Your task to perform on an android device: turn on improve location accuracy Image 0: 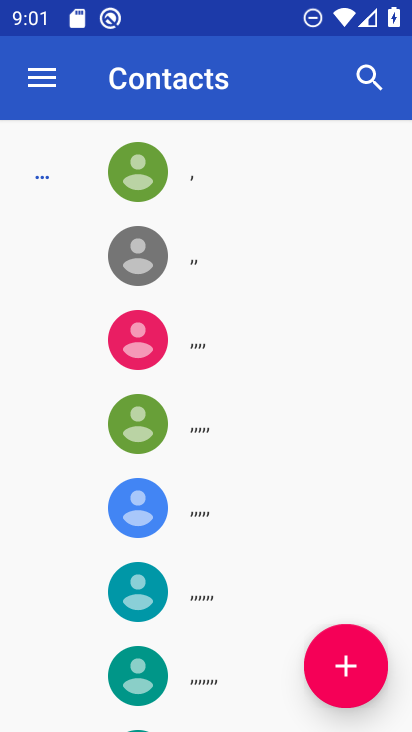
Step 0: press home button
Your task to perform on an android device: turn on improve location accuracy Image 1: 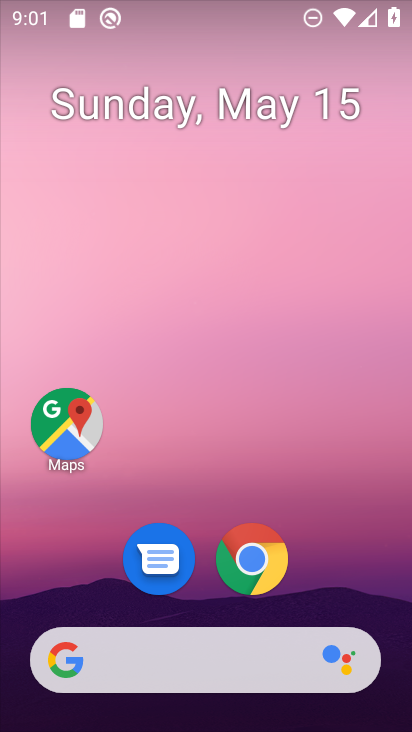
Step 1: drag from (352, 574) to (336, 175)
Your task to perform on an android device: turn on improve location accuracy Image 2: 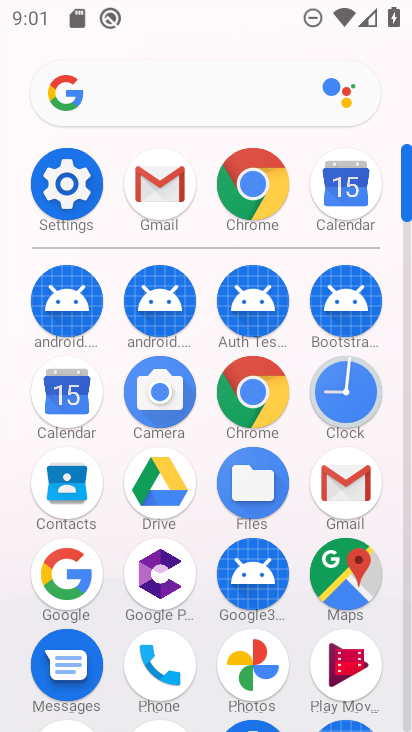
Step 2: click (57, 202)
Your task to perform on an android device: turn on improve location accuracy Image 3: 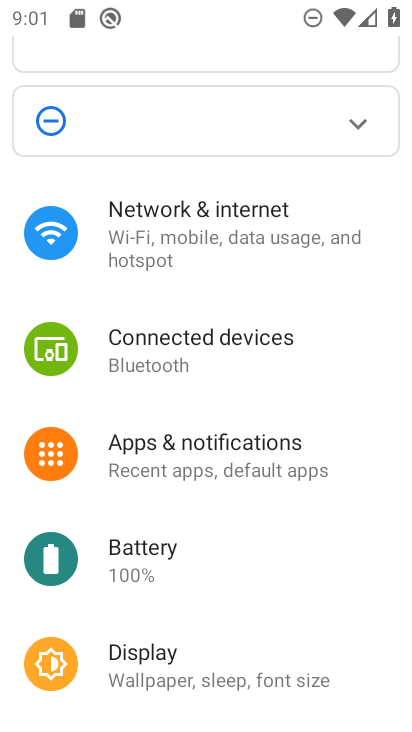
Step 3: drag from (183, 538) to (189, 409)
Your task to perform on an android device: turn on improve location accuracy Image 4: 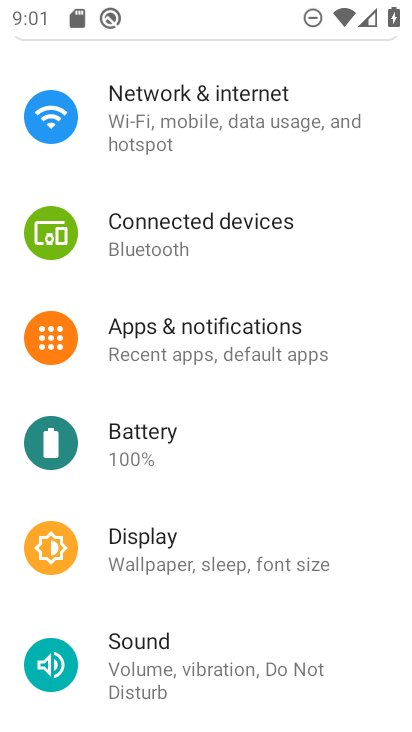
Step 4: drag from (226, 616) to (254, 409)
Your task to perform on an android device: turn on improve location accuracy Image 5: 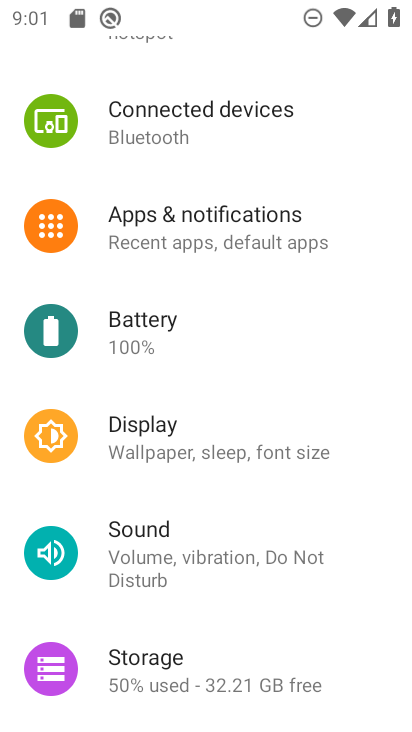
Step 5: drag from (234, 652) to (264, 413)
Your task to perform on an android device: turn on improve location accuracy Image 6: 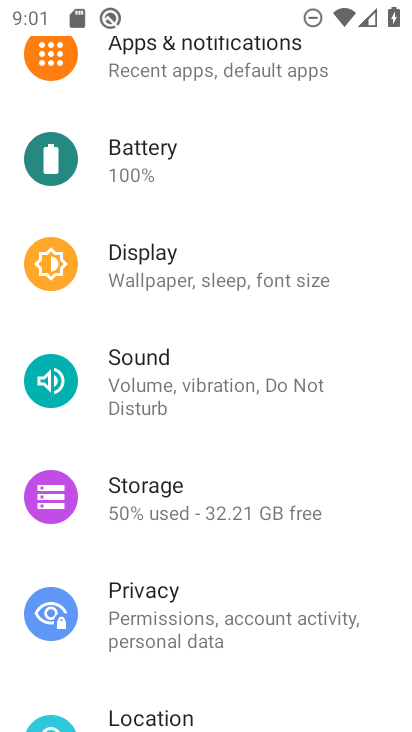
Step 6: click (217, 705)
Your task to perform on an android device: turn on improve location accuracy Image 7: 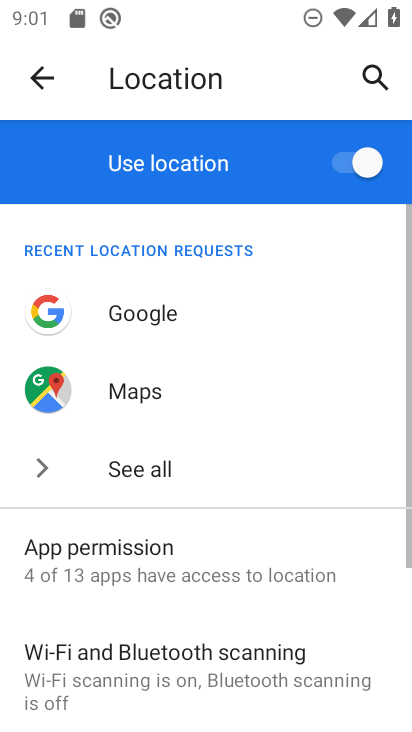
Step 7: drag from (210, 639) to (232, 364)
Your task to perform on an android device: turn on improve location accuracy Image 8: 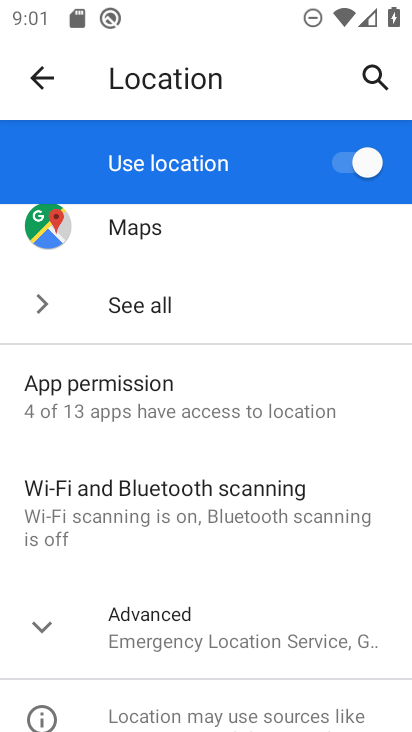
Step 8: click (247, 646)
Your task to perform on an android device: turn on improve location accuracy Image 9: 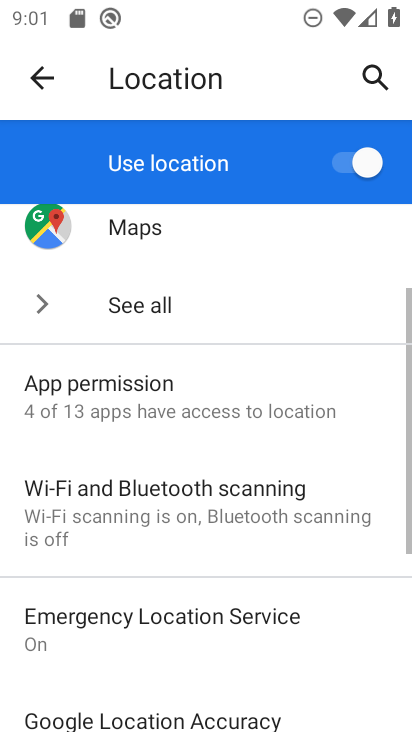
Step 9: drag from (247, 603) to (261, 377)
Your task to perform on an android device: turn on improve location accuracy Image 10: 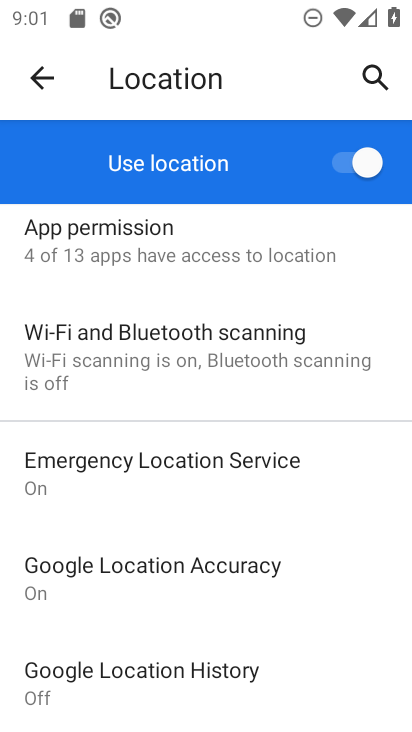
Step 10: click (249, 562)
Your task to perform on an android device: turn on improve location accuracy Image 11: 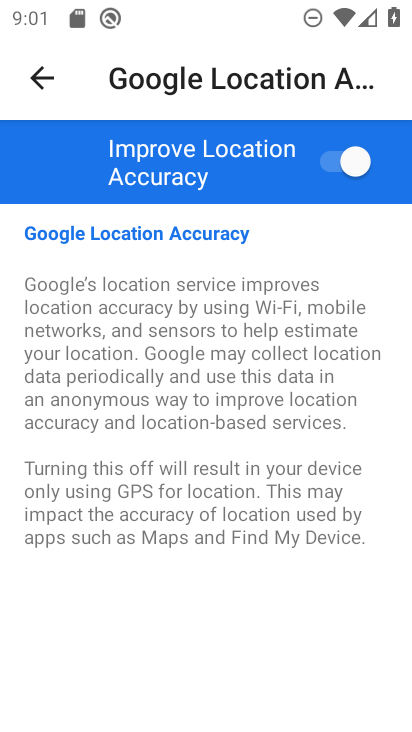
Step 11: task complete